Your task to perform on an android device: turn on airplane mode Image 0: 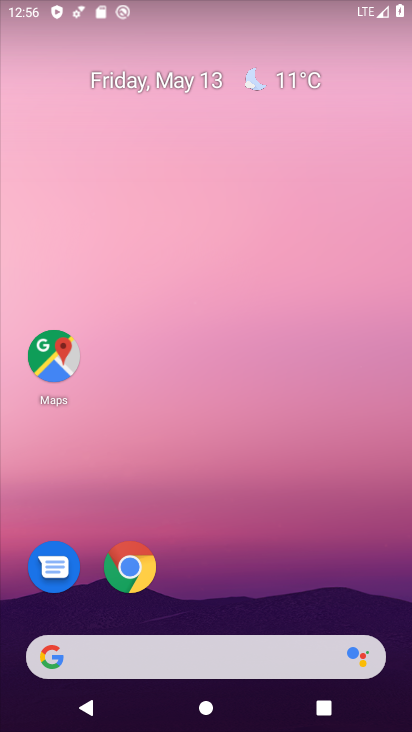
Step 0: drag from (241, 8) to (217, 589)
Your task to perform on an android device: turn on airplane mode Image 1: 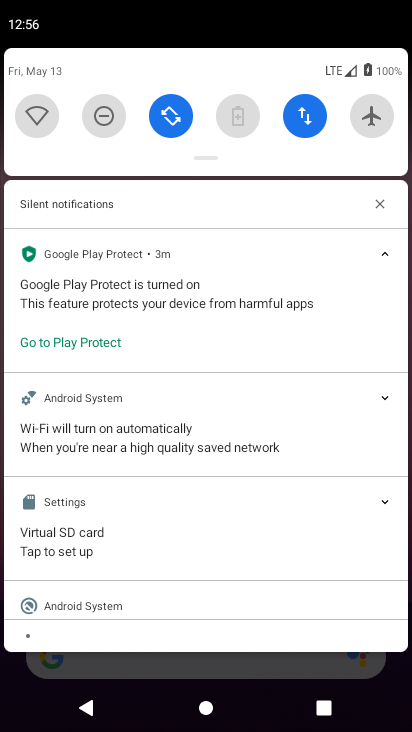
Step 1: click (371, 116)
Your task to perform on an android device: turn on airplane mode Image 2: 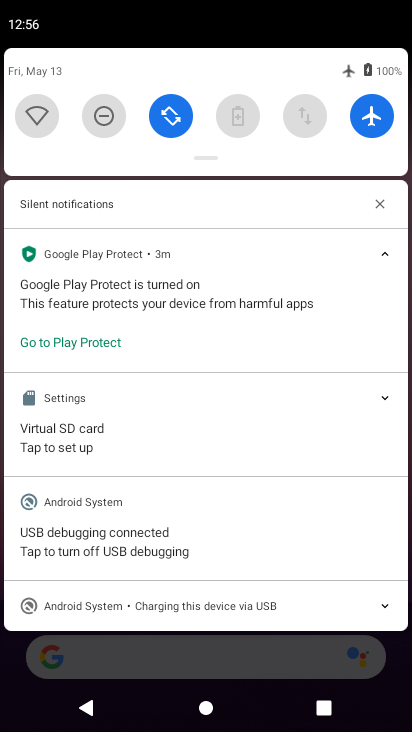
Step 2: task complete